Your task to perform on an android device: Open Google Image 0: 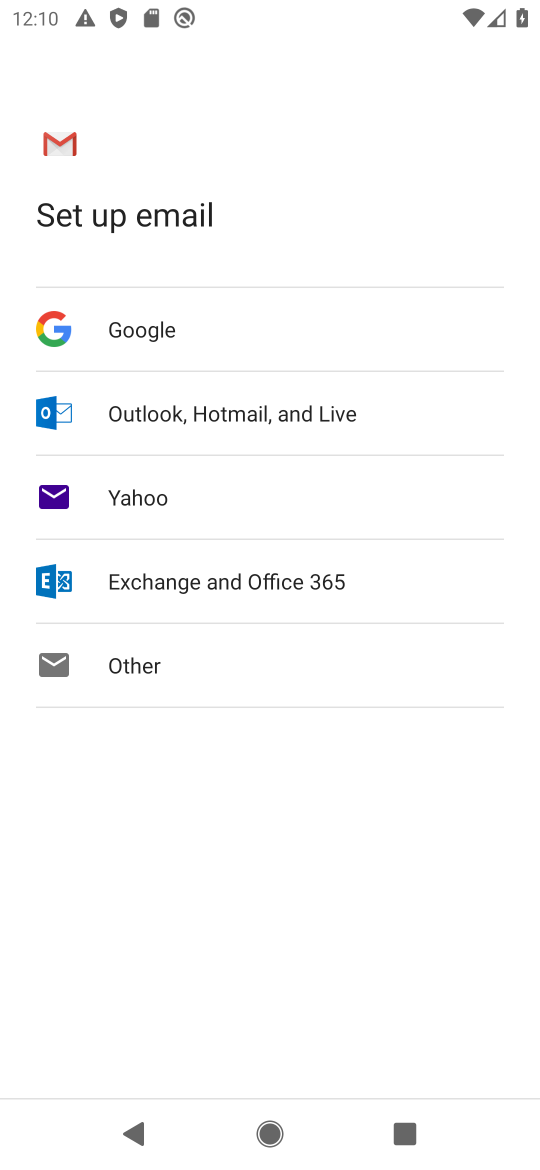
Step 0: press home button
Your task to perform on an android device: Open Google Image 1: 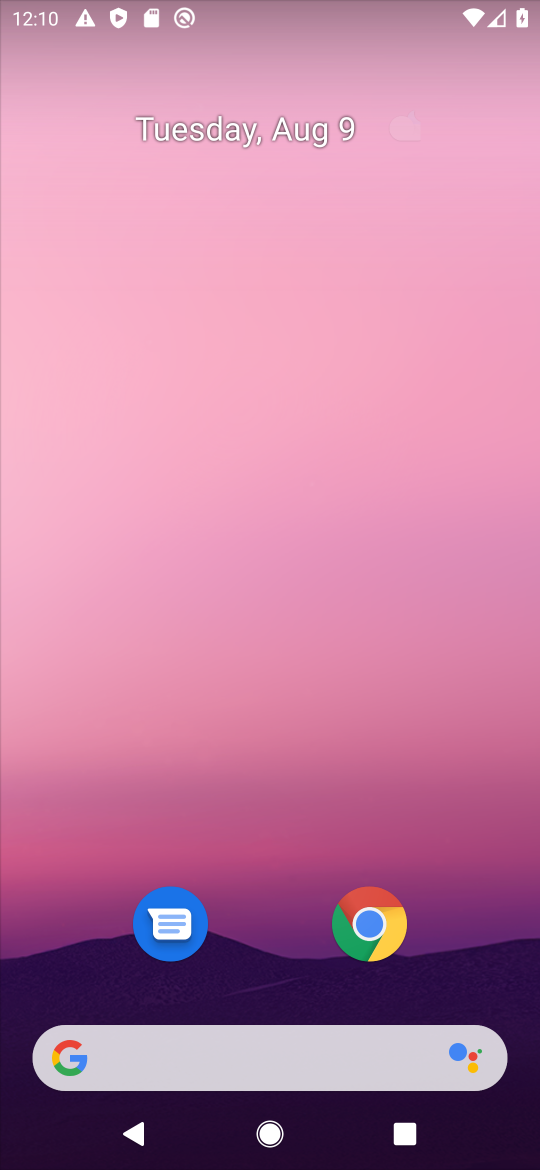
Step 1: click (386, 948)
Your task to perform on an android device: Open Google Image 2: 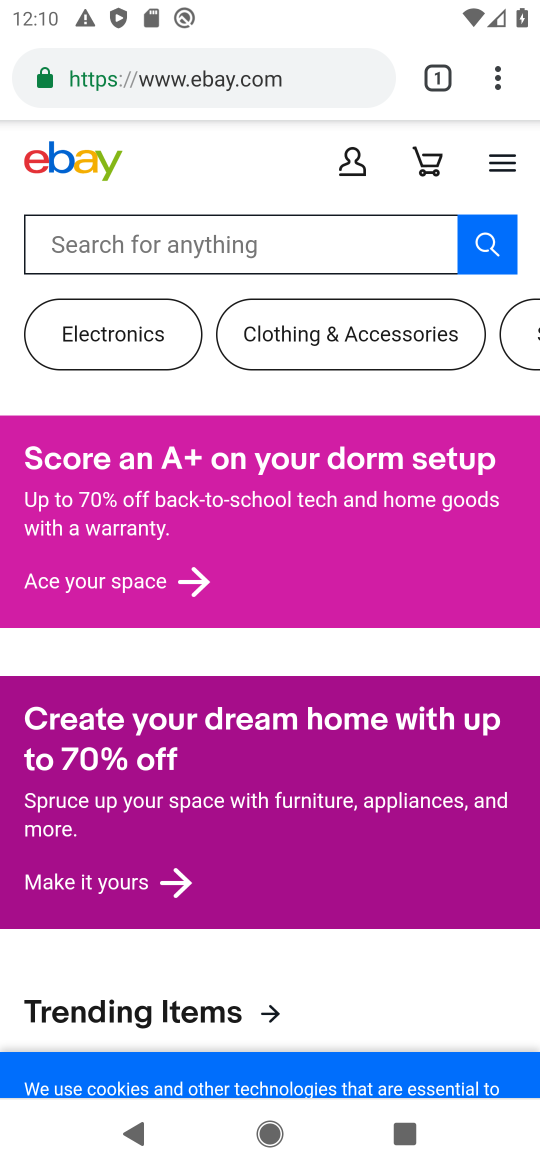
Step 2: click (342, 94)
Your task to perform on an android device: Open Google Image 3: 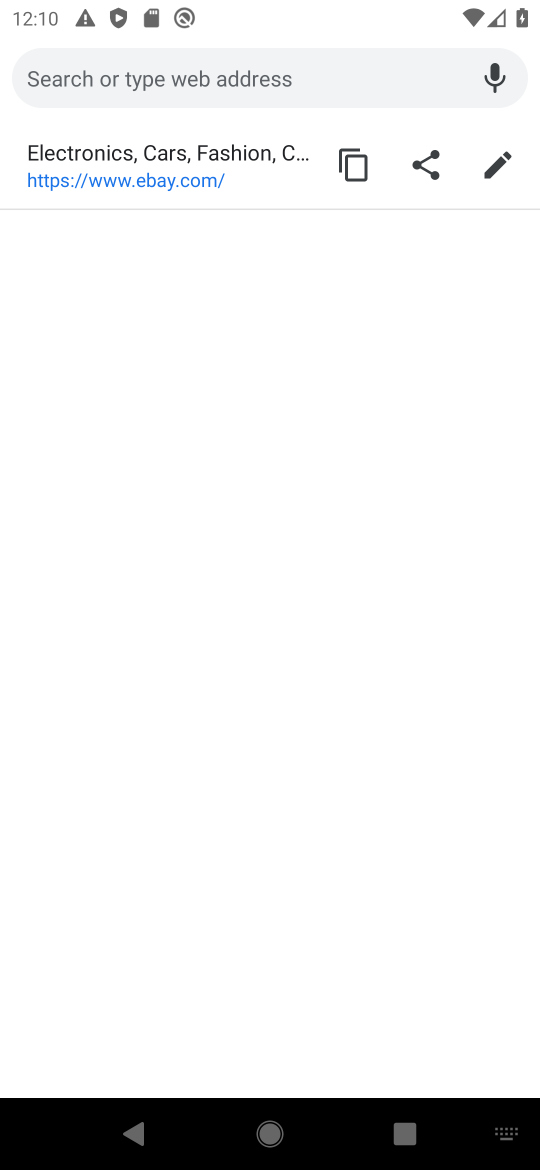
Step 3: type "google.com"
Your task to perform on an android device: Open Google Image 4: 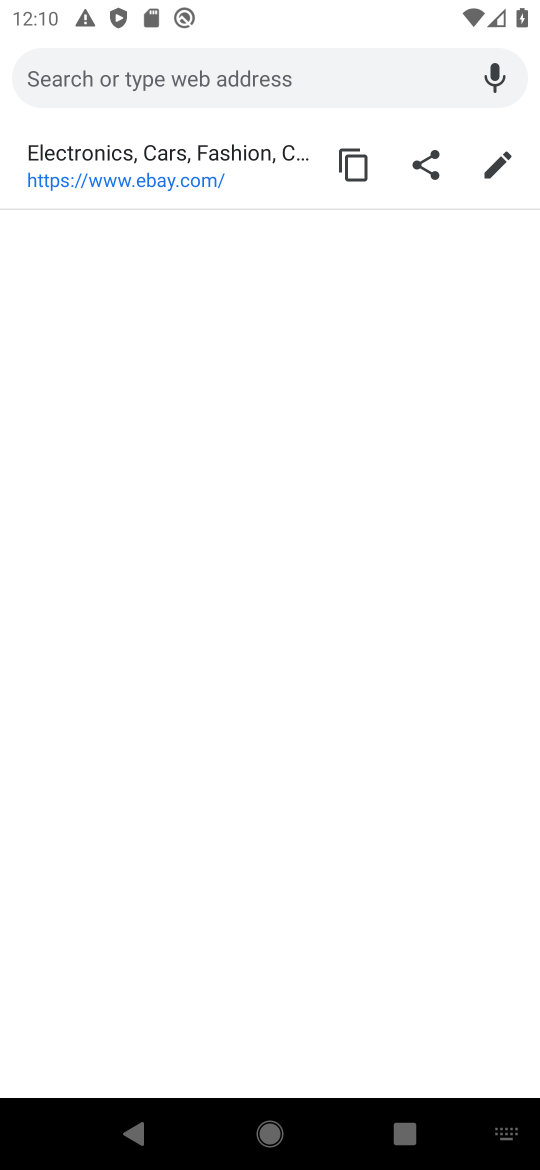
Step 4: click (313, 182)
Your task to perform on an android device: Open Google Image 5: 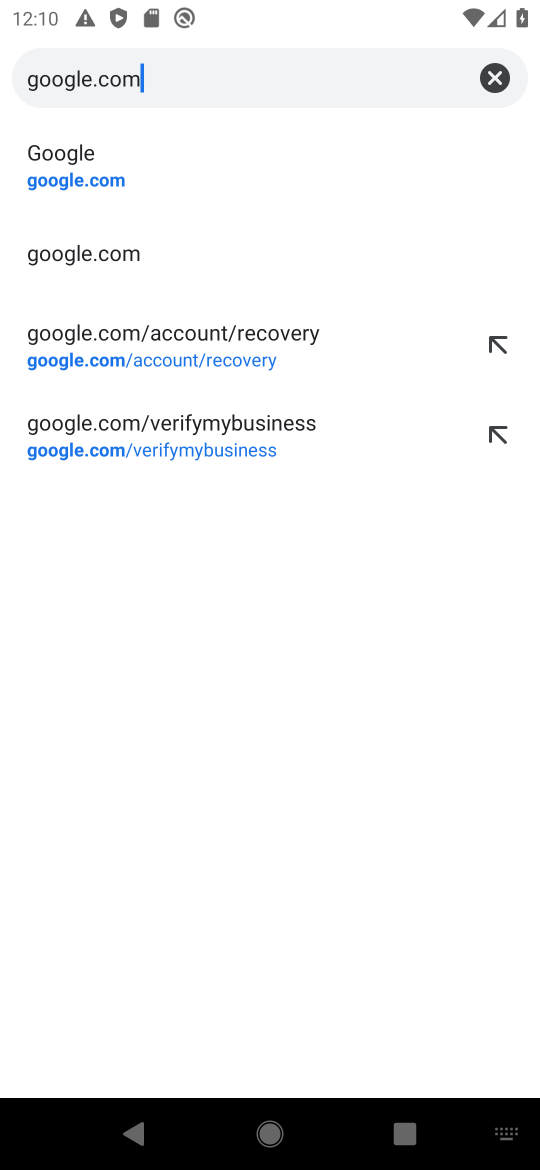
Step 5: click (392, 163)
Your task to perform on an android device: Open Google Image 6: 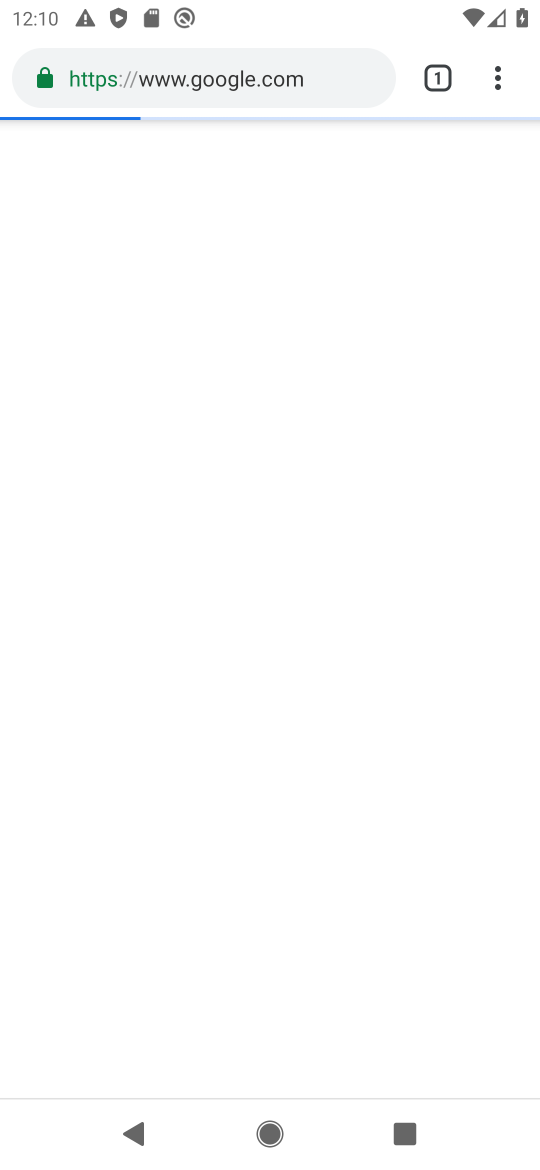
Step 6: task complete